Your task to perform on an android device: set an alarm Image 0: 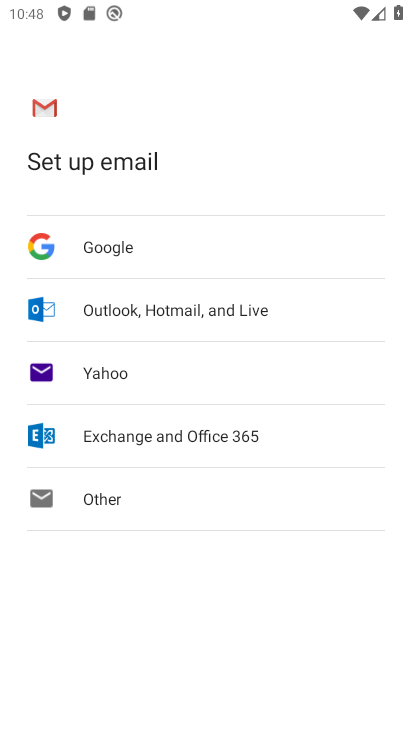
Step 0: press home button
Your task to perform on an android device: set an alarm Image 1: 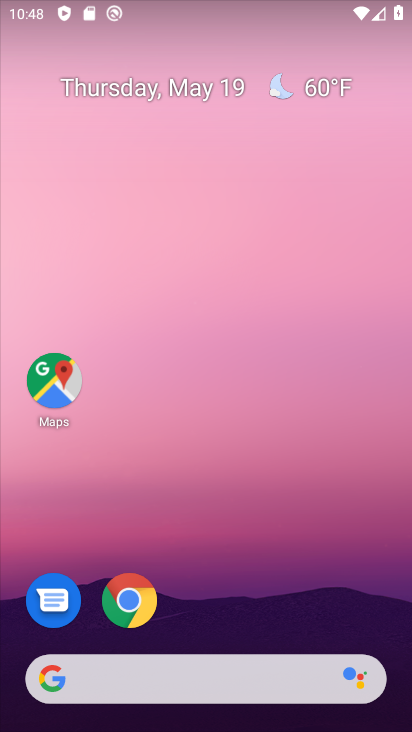
Step 1: drag from (367, 552) to (362, 294)
Your task to perform on an android device: set an alarm Image 2: 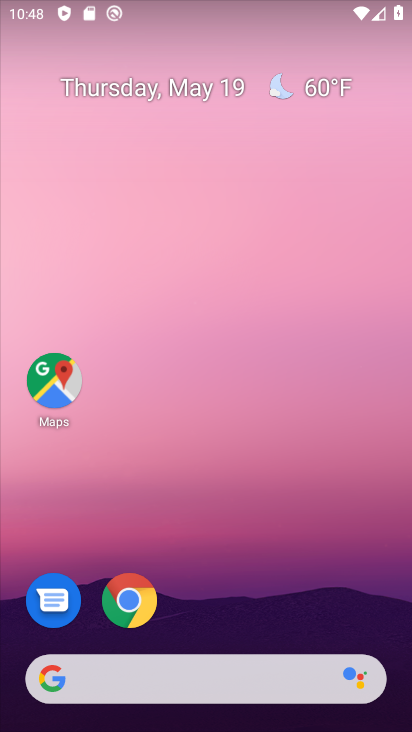
Step 2: drag from (305, 593) to (337, 256)
Your task to perform on an android device: set an alarm Image 3: 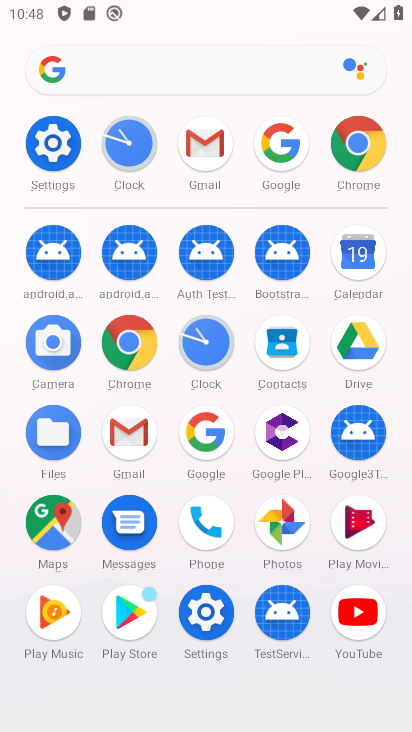
Step 3: click (218, 355)
Your task to perform on an android device: set an alarm Image 4: 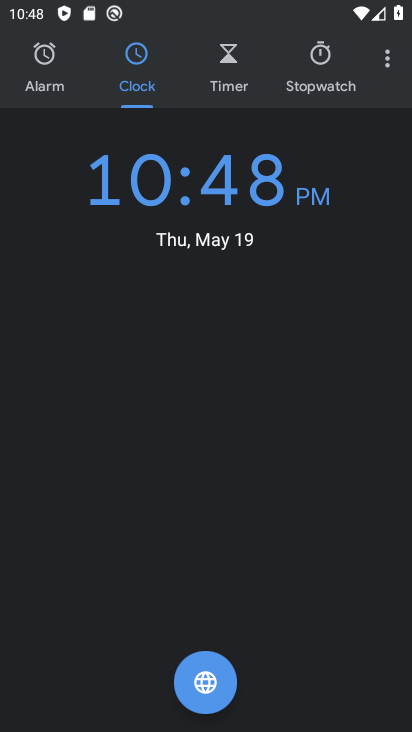
Step 4: click (52, 59)
Your task to perform on an android device: set an alarm Image 5: 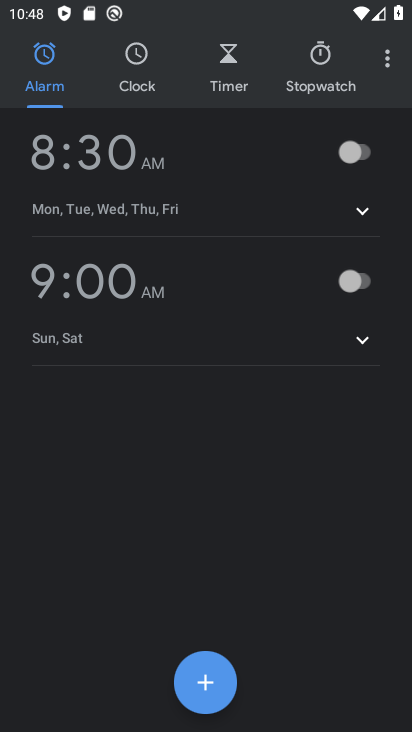
Step 5: click (212, 700)
Your task to perform on an android device: set an alarm Image 6: 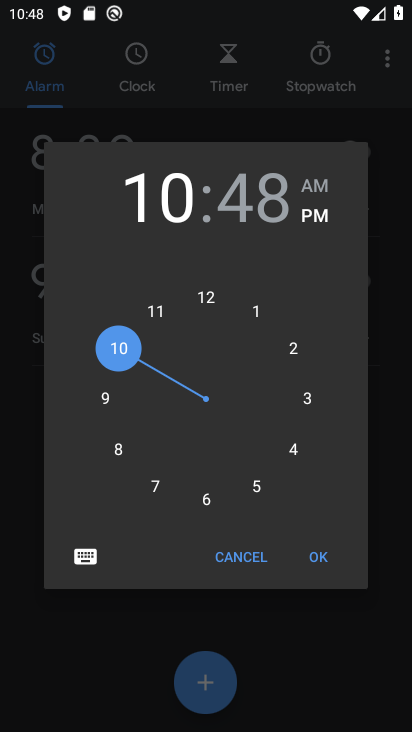
Step 6: drag from (275, 555) to (276, 463)
Your task to perform on an android device: set an alarm Image 7: 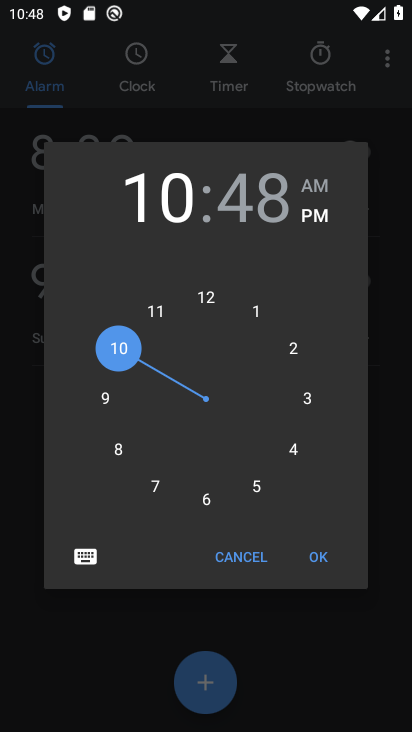
Step 7: click (291, 455)
Your task to perform on an android device: set an alarm Image 8: 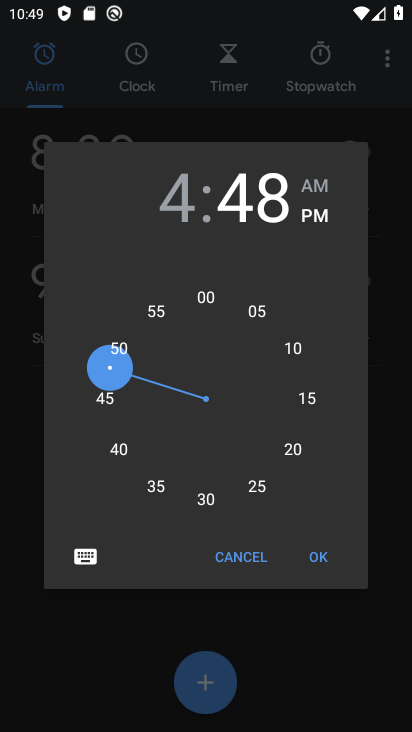
Step 8: click (330, 453)
Your task to perform on an android device: set an alarm Image 9: 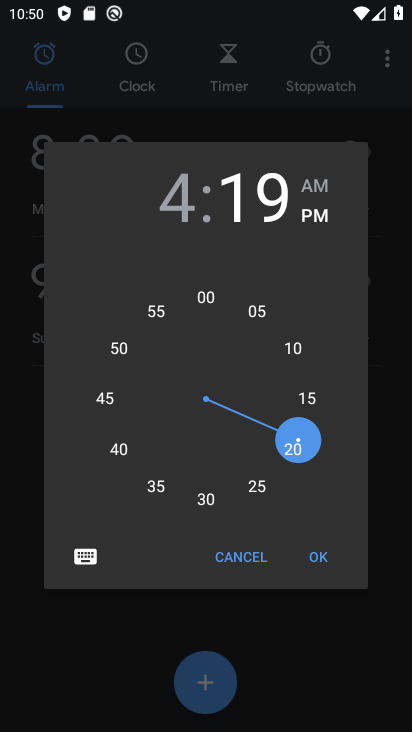
Step 9: click (326, 569)
Your task to perform on an android device: set an alarm Image 10: 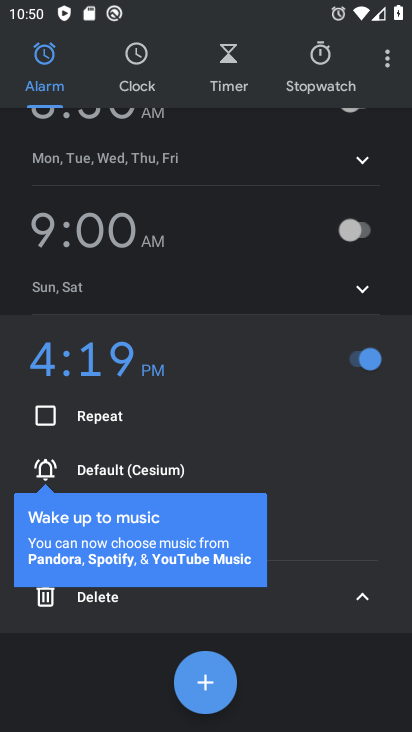
Step 10: task complete